Your task to perform on an android device: Open battery settings Image 0: 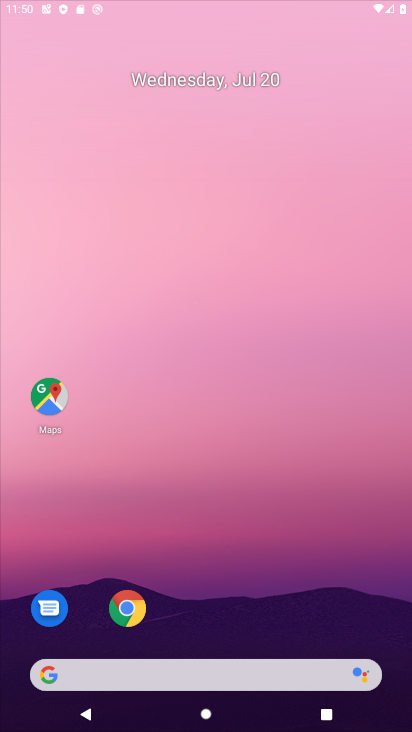
Step 0: click (85, 21)
Your task to perform on an android device: Open battery settings Image 1: 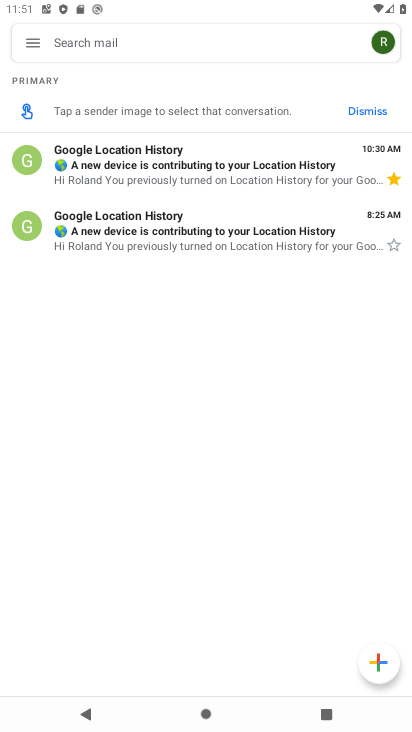
Step 1: press home button
Your task to perform on an android device: Open battery settings Image 2: 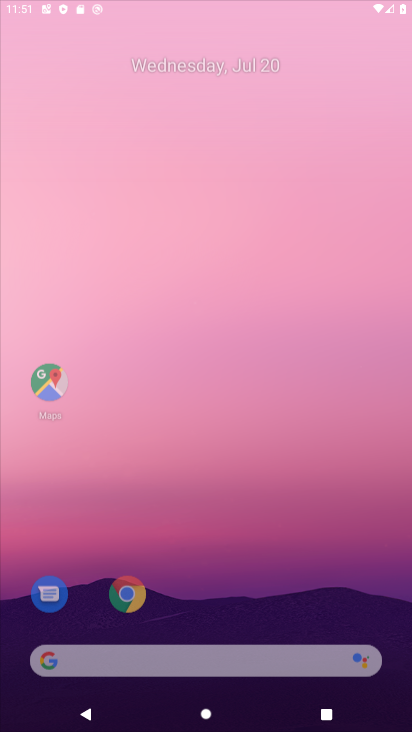
Step 2: drag from (354, 642) to (106, 41)
Your task to perform on an android device: Open battery settings Image 3: 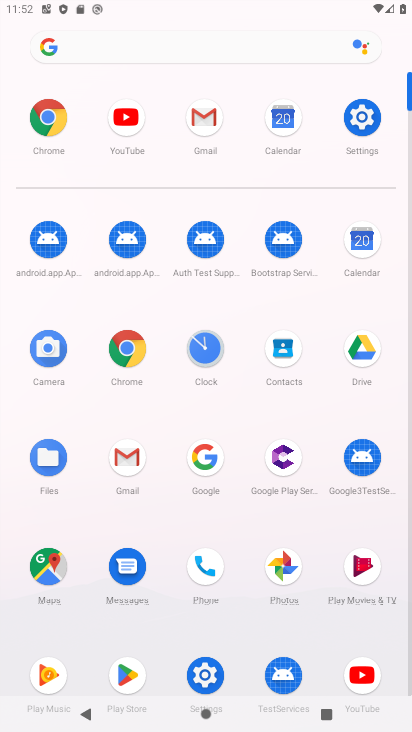
Step 3: click (214, 682)
Your task to perform on an android device: Open battery settings Image 4: 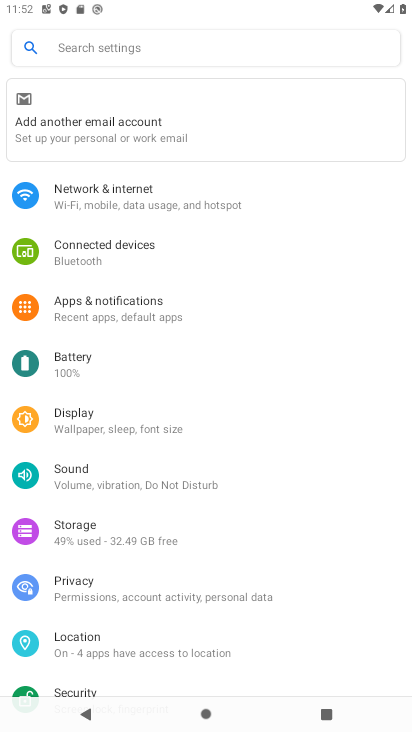
Step 4: click (110, 359)
Your task to perform on an android device: Open battery settings Image 5: 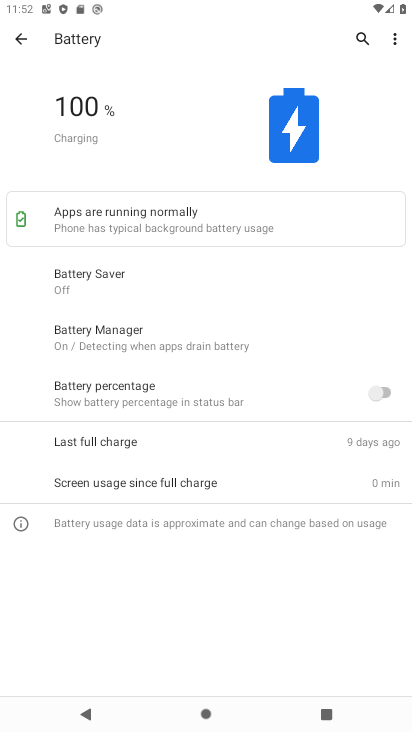
Step 5: task complete